Your task to perform on an android device: turn pop-ups off in chrome Image 0: 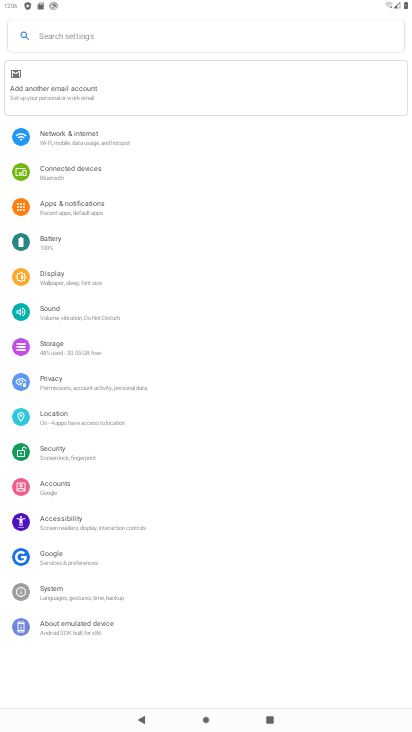
Step 0: press home button
Your task to perform on an android device: turn pop-ups off in chrome Image 1: 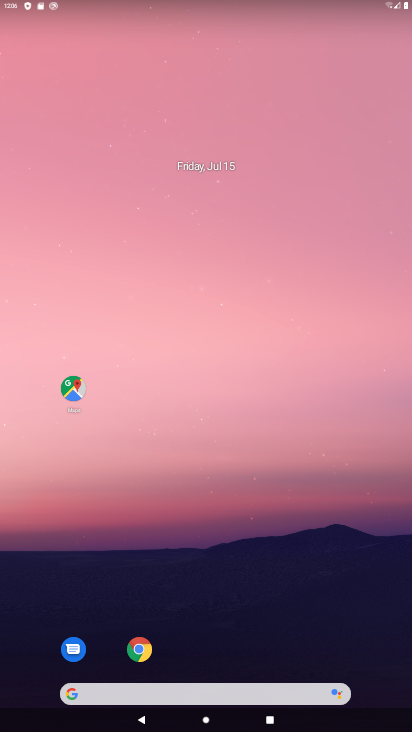
Step 1: click (137, 649)
Your task to perform on an android device: turn pop-ups off in chrome Image 2: 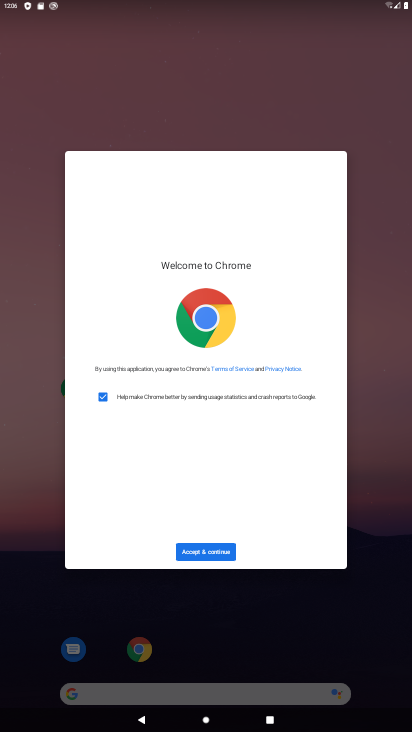
Step 2: click (217, 559)
Your task to perform on an android device: turn pop-ups off in chrome Image 3: 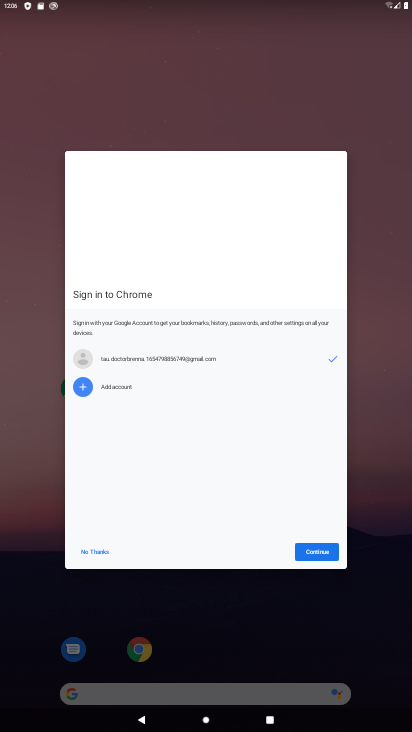
Step 3: click (319, 547)
Your task to perform on an android device: turn pop-ups off in chrome Image 4: 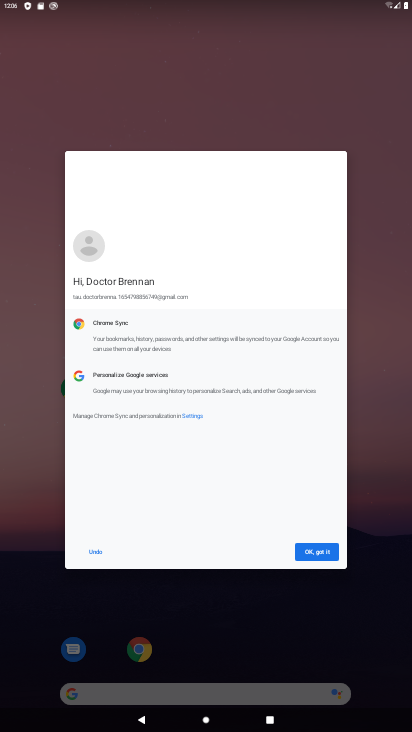
Step 4: click (312, 557)
Your task to perform on an android device: turn pop-ups off in chrome Image 5: 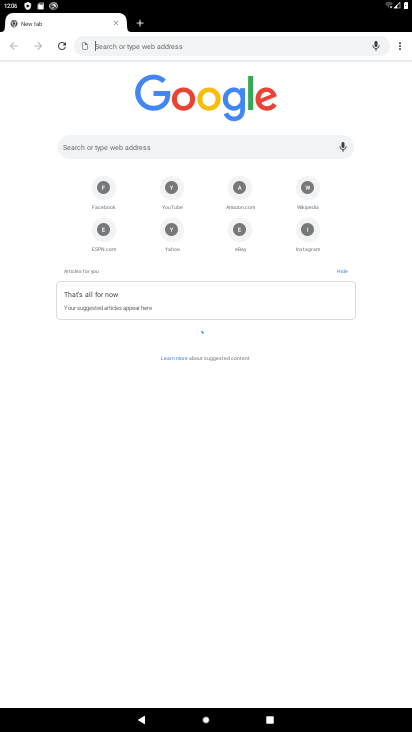
Step 5: click (400, 41)
Your task to perform on an android device: turn pop-ups off in chrome Image 6: 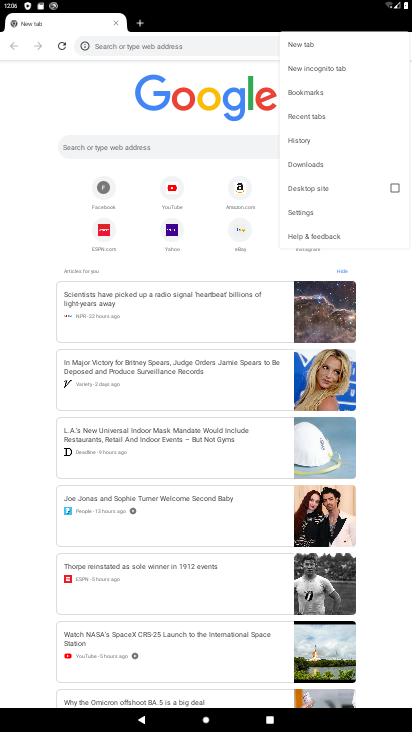
Step 6: click (302, 216)
Your task to perform on an android device: turn pop-ups off in chrome Image 7: 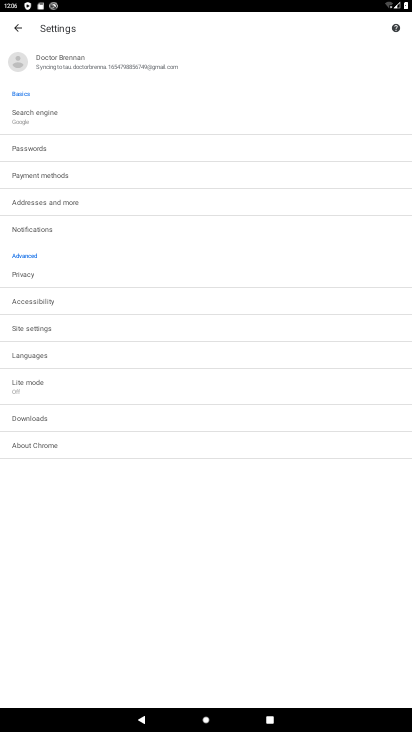
Step 7: click (44, 331)
Your task to perform on an android device: turn pop-ups off in chrome Image 8: 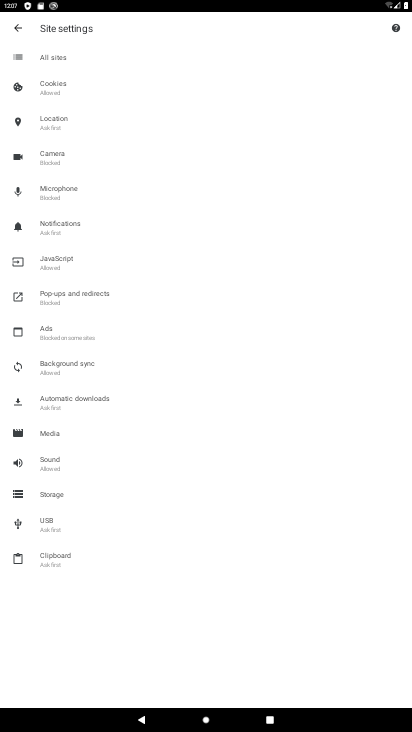
Step 8: click (92, 294)
Your task to perform on an android device: turn pop-ups off in chrome Image 9: 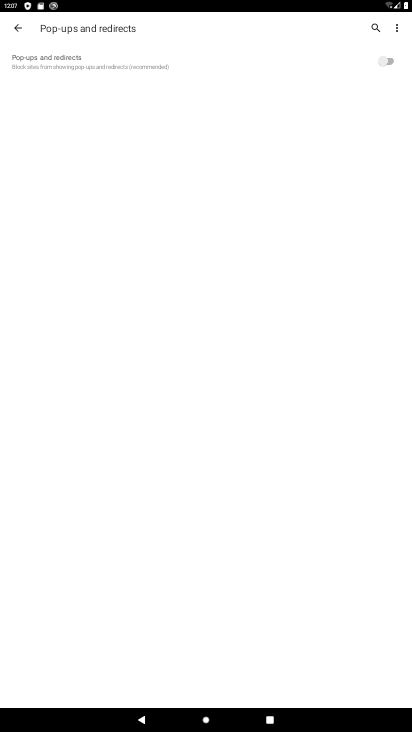
Step 9: task complete